Your task to perform on an android device: open device folders in google photos Image 0: 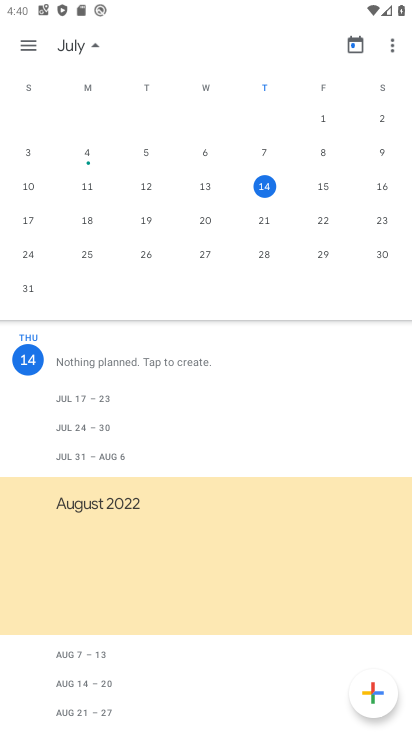
Step 0: press back button
Your task to perform on an android device: open device folders in google photos Image 1: 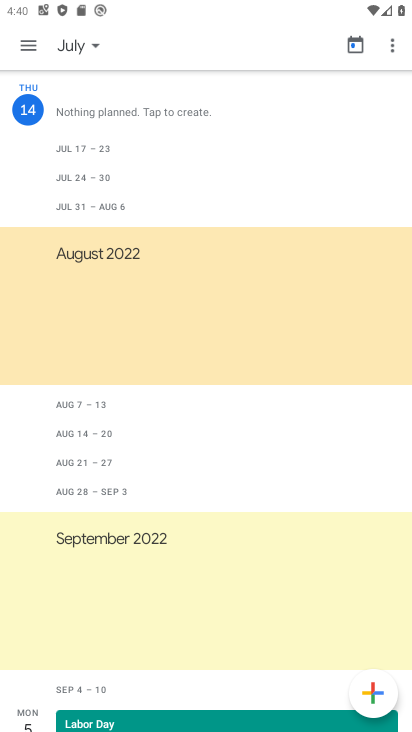
Step 1: press back button
Your task to perform on an android device: open device folders in google photos Image 2: 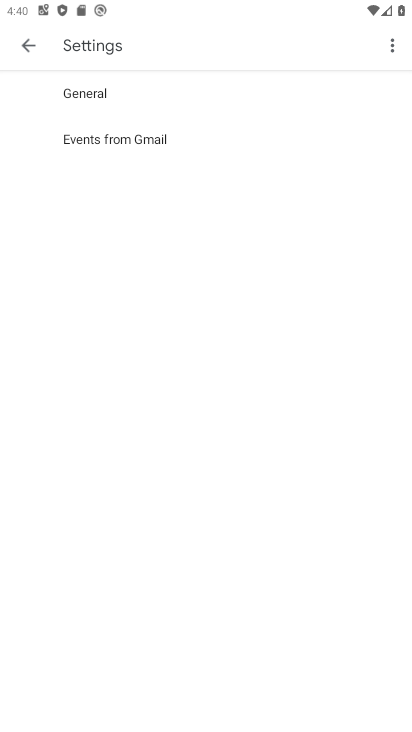
Step 2: press back button
Your task to perform on an android device: open device folders in google photos Image 3: 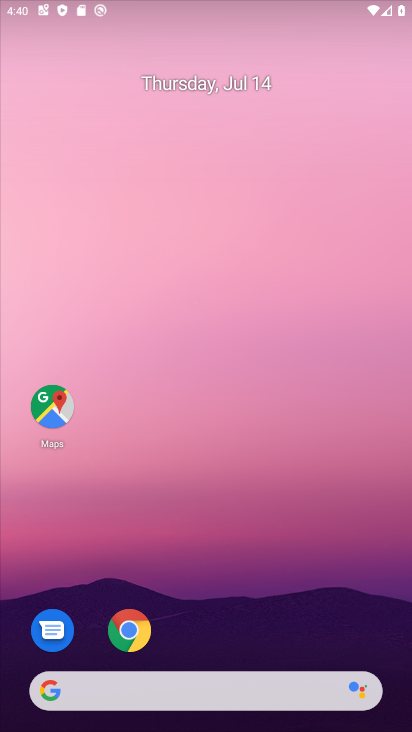
Step 3: drag from (273, 633) to (324, 28)
Your task to perform on an android device: open device folders in google photos Image 4: 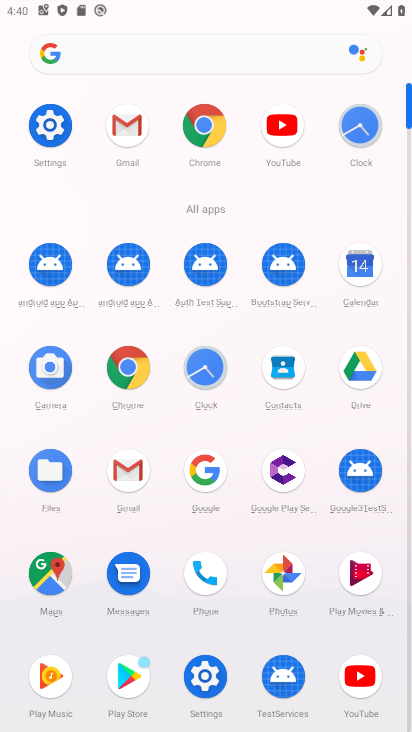
Step 4: click (287, 576)
Your task to perform on an android device: open device folders in google photos Image 5: 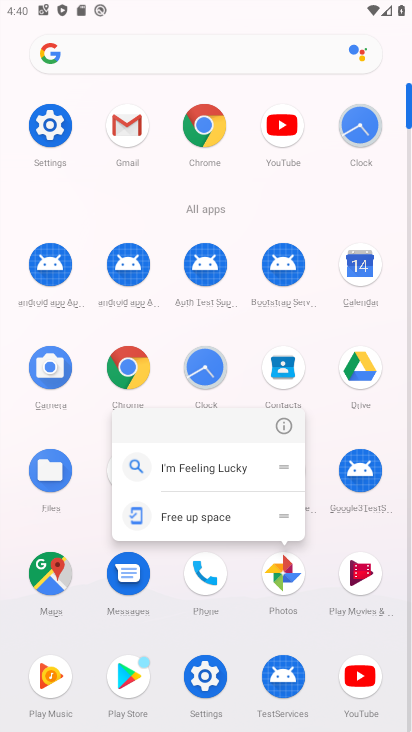
Step 5: click (290, 573)
Your task to perform on an android device: open device folders in google photos Image 6: 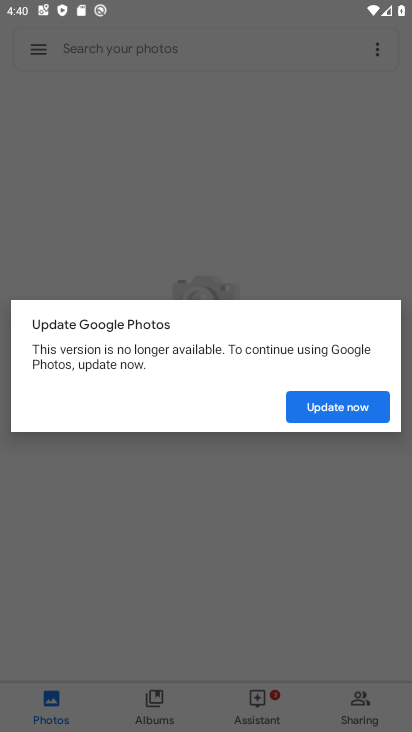
Step 6: click (324, 412)
Your task to perform on an android device: open device folders in google photos Image 7: 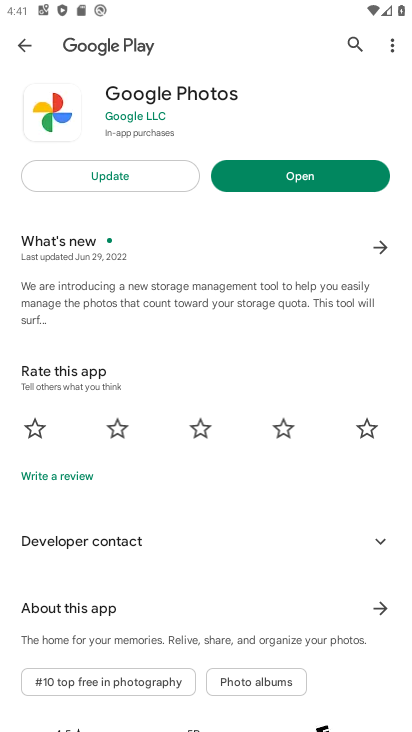
Step 7: click (293, 179)
Your task to perform on an android device: open device folders in google photos Image 8: 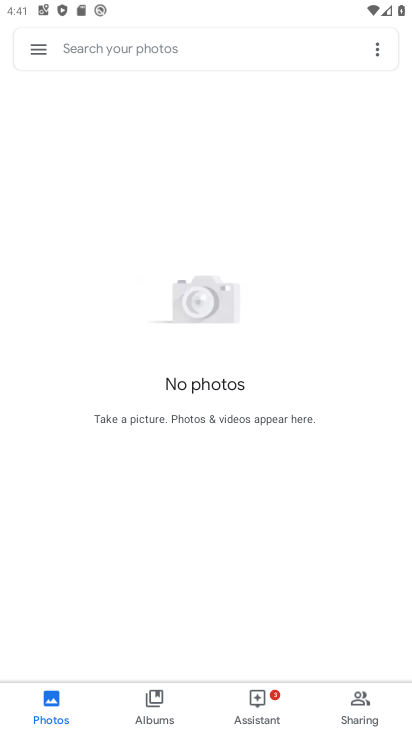
Step 8: click (40, 49)
Your task to perform on an android device: open device folders in google photos Image 9: 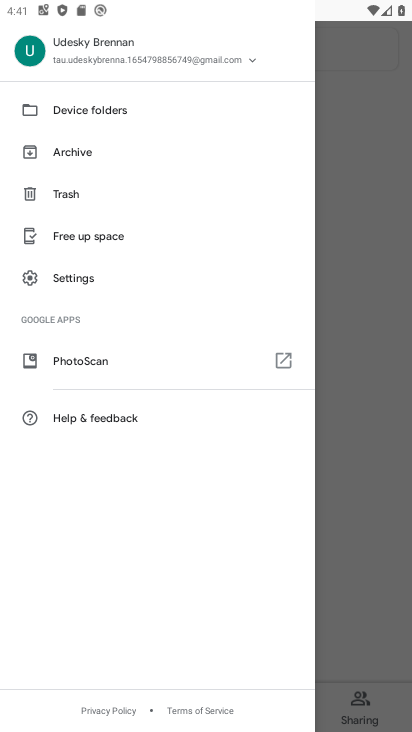
Step 9: click (92, 153)
Your task to perform on an android device: open device folders in google photos Image 10: 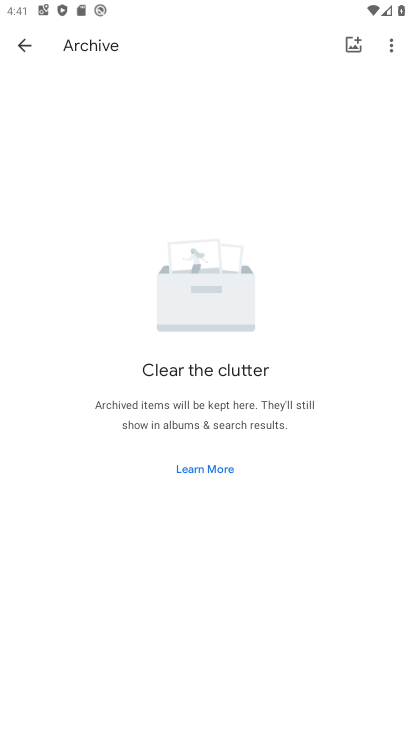
Step 10: click (18, 40)
Your task to perform on an android device: open device folders in google photos Image 11: 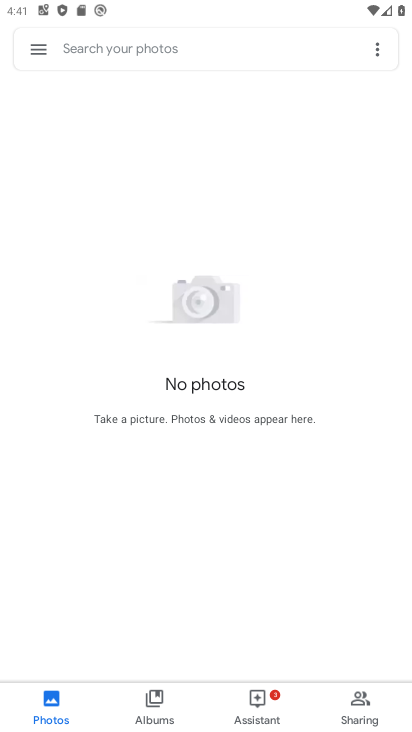
Step 11: click (50, 51)
Your task to perform on an android device: open device folders in google photos Image 12: 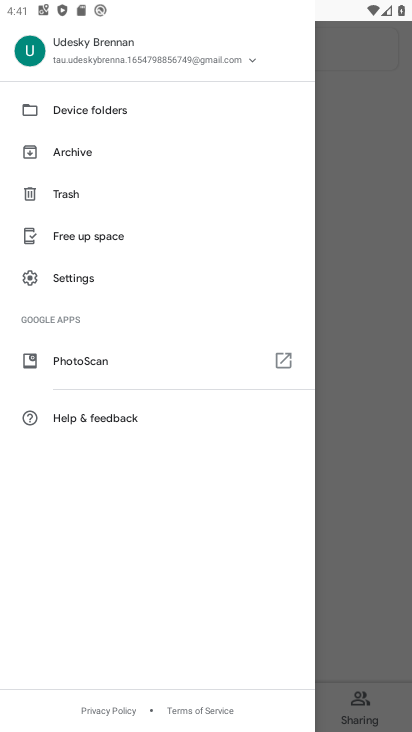
Step 12: click (96, 100)
Your task to perform on an android device: open device folders in google photos Image 13: 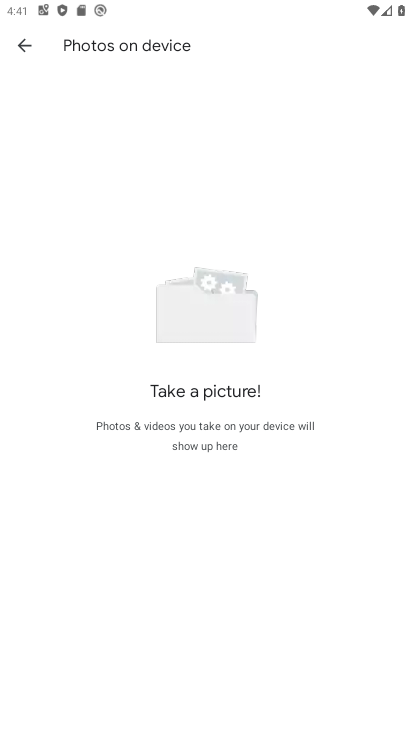
Step 13: task complete